Your task to perform on an android device: turn on showing notifications on the lock screen Image 0: 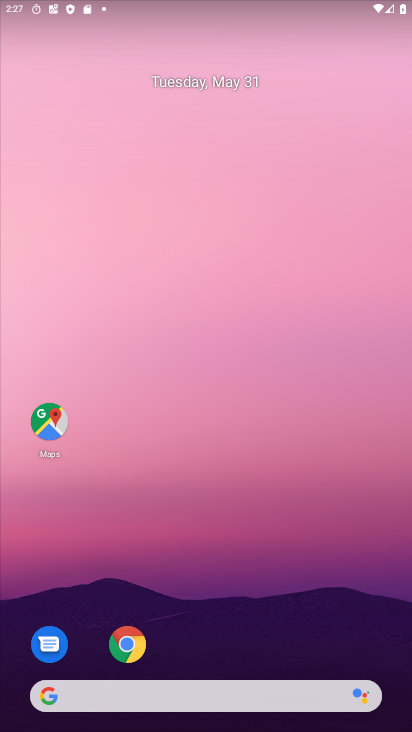
Step 0: drag from (398, 687) to (380, 100)
Your task to perform on an android device: turn on showing notifications on the lock screen Image 1: 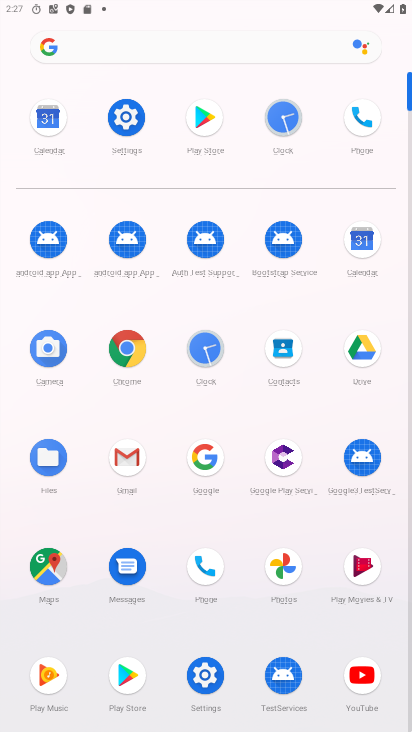
Step 1: click (128, 125)
Your task to perform on an android device: turn on showing notifications on the lock screen Image 2: 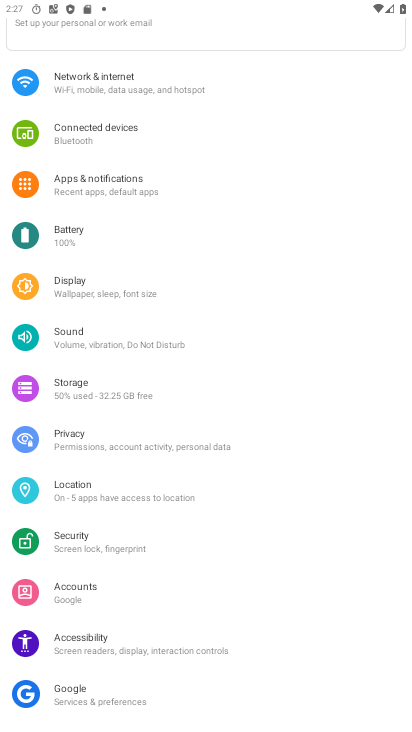
Step 2: click (85, 173)
Your task to perform on an android device: turn on showing notifications on the lock screen Image 3: 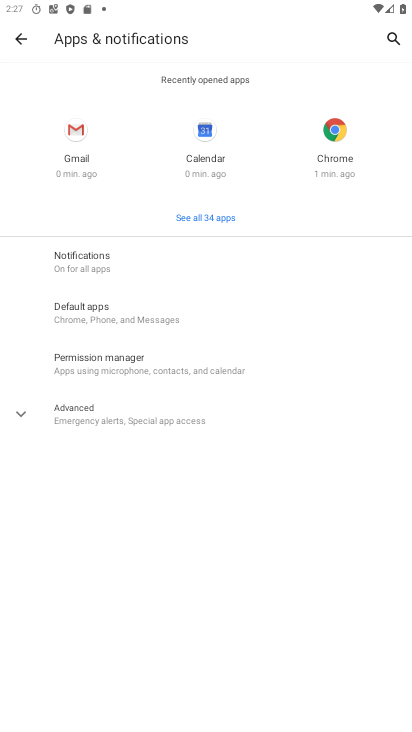
Step 3: click (90, 257)
Your task to perform on an android device: turn on showing notifications on the lock screen Image 4: 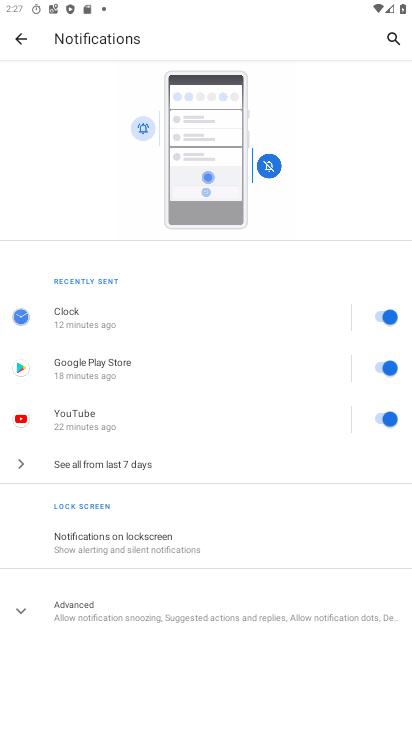
Step 4: click (91, 541)
Your task to perform on an android device: turn on showing notifications on the lock screen Image 5: 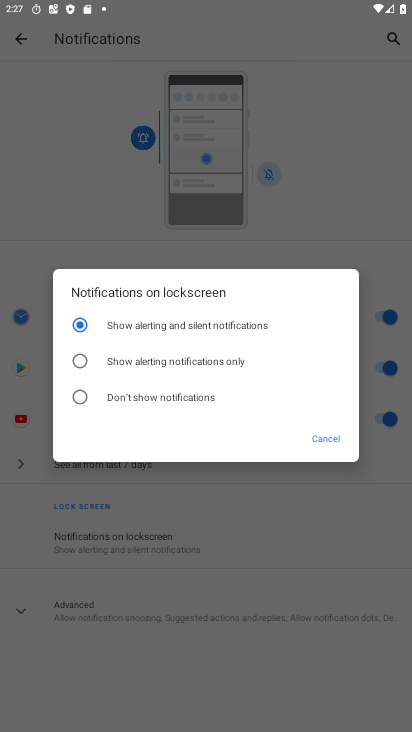
Step 5: task complete